Your task to perform on an android device: install app "Google Docs" Image 0: 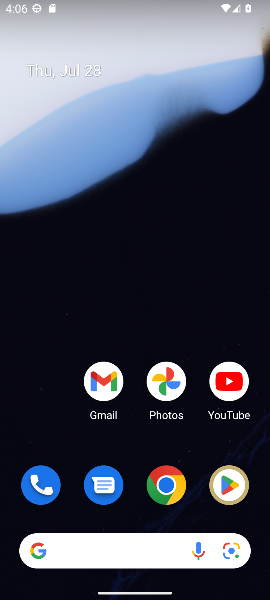
Step 0: click (223, 481)
Your task to perform on an android device: install app "Google Docs" Image 1: 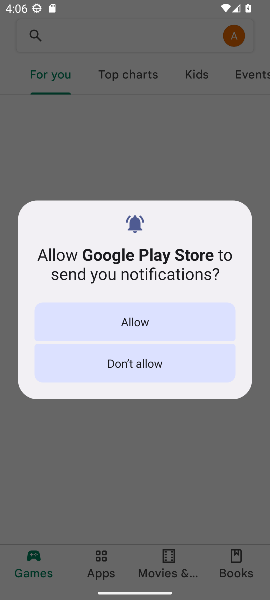
Step 1: click (149, 313)
Your task to perform on an android device: install app "Google Docs" Image 2: 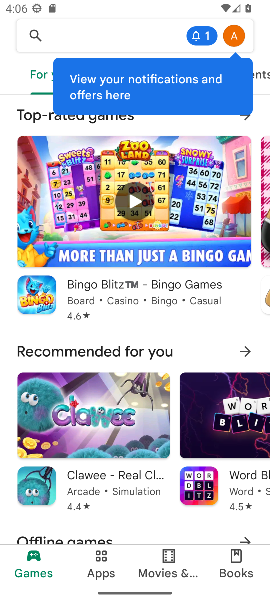
Step 2: click (60, 37)
Your task to perform on an android device: install app "Google Docs" Image 3: 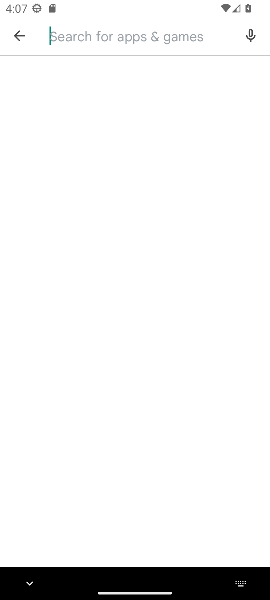
Step 3: type "Google Docs"
Your task to perform on an android device: install app "Google Docs" Image 4: 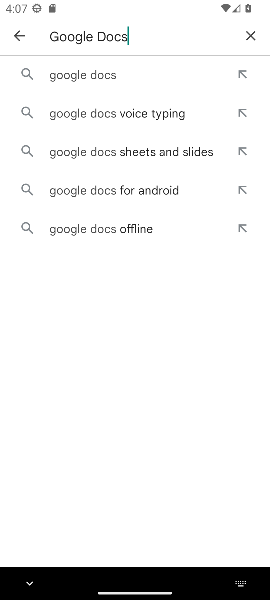
Step 4: click (70, 73)
Your task to perform on an android device: install app "Google Docs" Image 5: 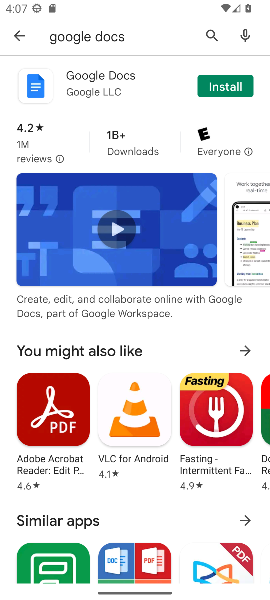
Step 5: click (220, 84)
Your task to perform on an android device: install app "Google Docs" Image 6: 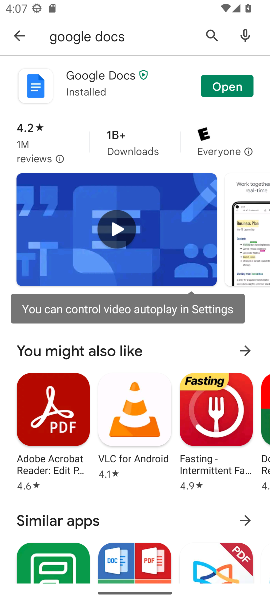
Step 6: task complete